Your task to perform on an android device: turn smart compose on in the gmail app Image 0: 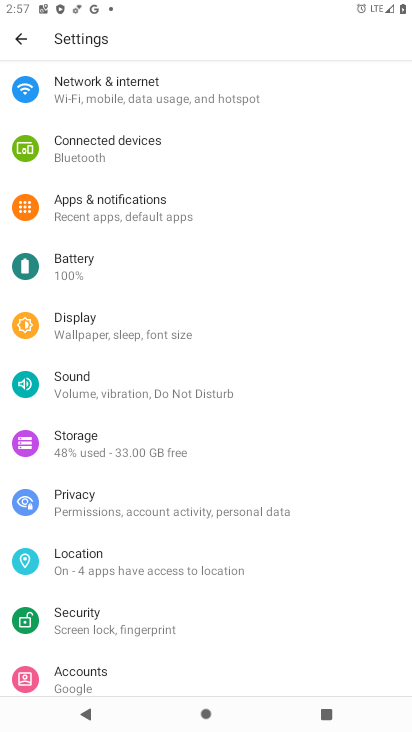
Step 0: press home button
Your task to perform on an android device: turn smart compose on in the gmail app Image 1: 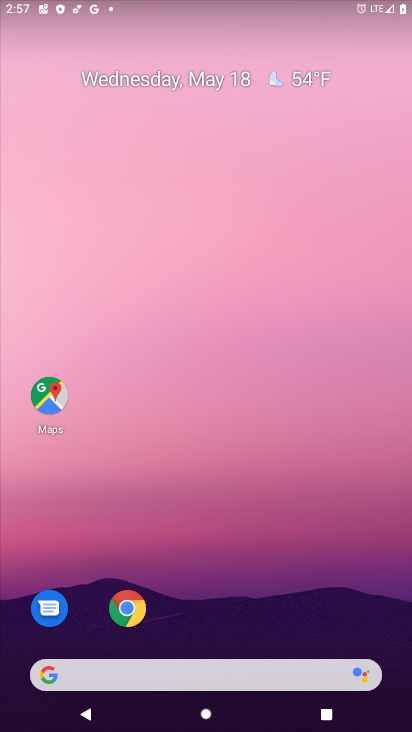
Step 1: drag from (287, 628) to (267, 2)
Your task to perform on an android device: turn smart compose on in the gmail app Image 2: 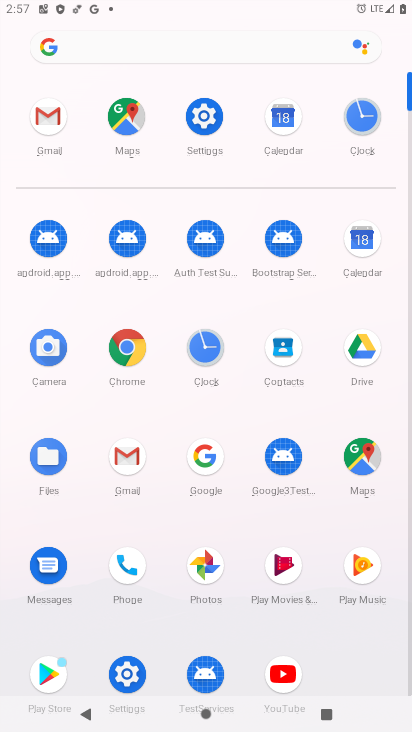
Step 2: click (50, 129)
Your task to perform on an android device: turn smart compose on in the gmail app Image 3: 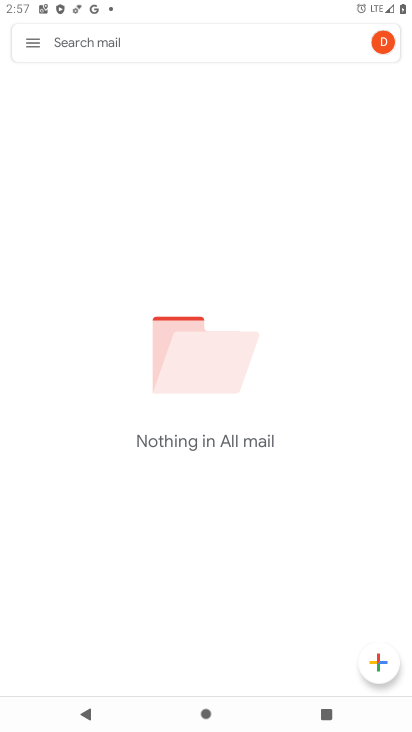
Step 3: click (30, 47)
Your task to perform on an android device: turn smart compose on in the gmail app Image 4: 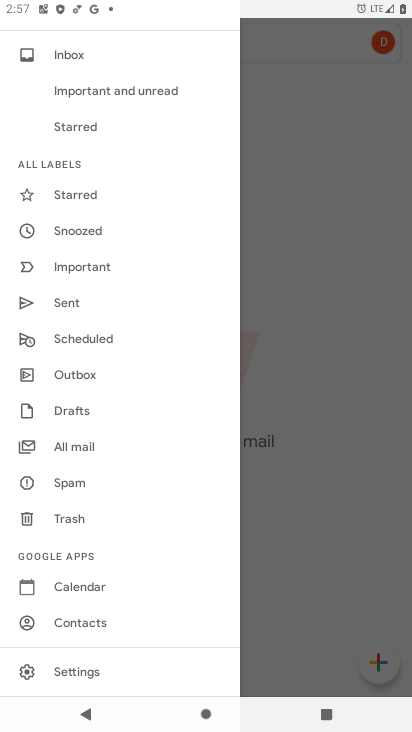
Step 4: click (83, 673)
Your task to perform on an android device: turn smart compose on in the gmail app Image 5: 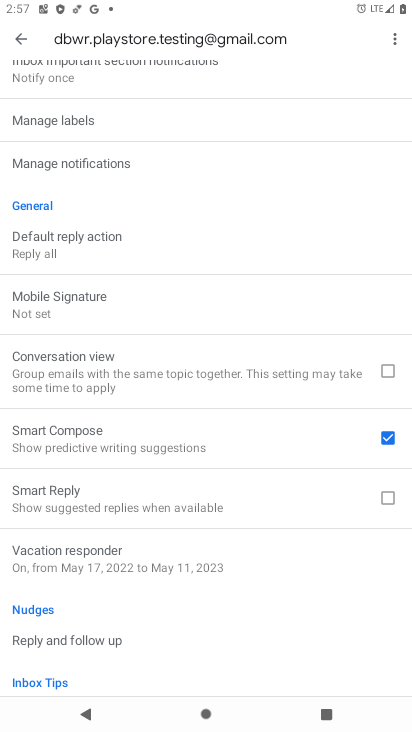
Step 5: task complete